Your task to perform on an android device: open sync settings in chrome Image 0: 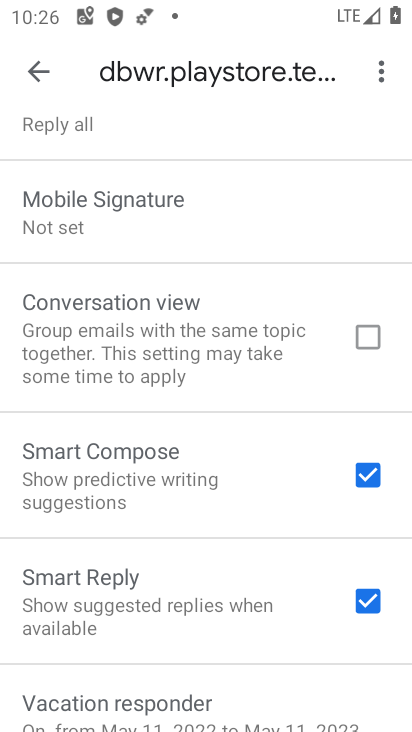
Step 0: press home button
Your task to perform on an android device: open sync settings in chrome Image 1: 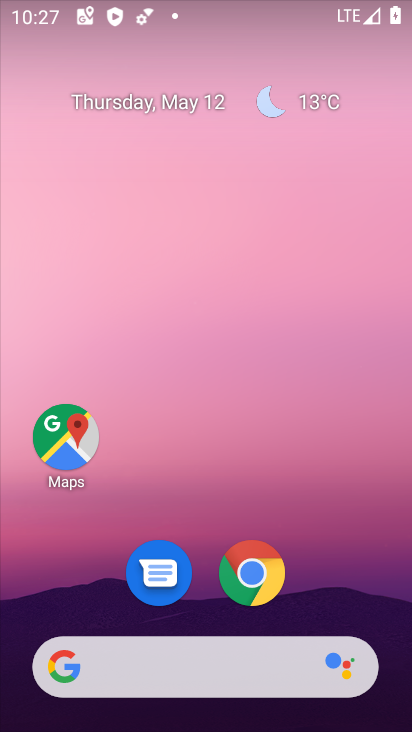
Step 1: click (277, 576)
Your task to perform on an android device: open sync settings in chrome Image 2: 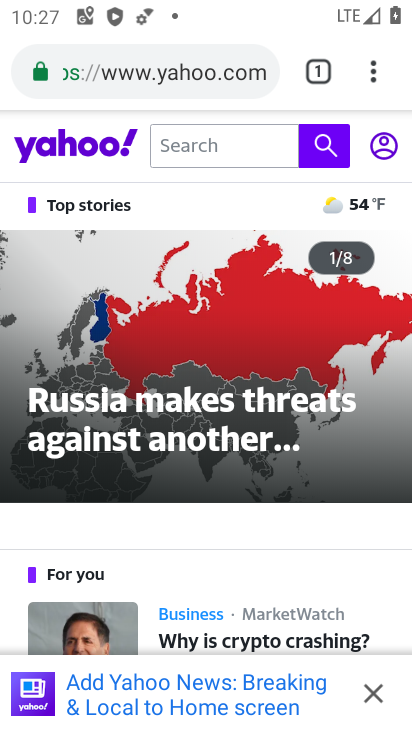
Step 2: click (366, 75)
Your task to perform on an android device: open sync settings in chrome Image 3: 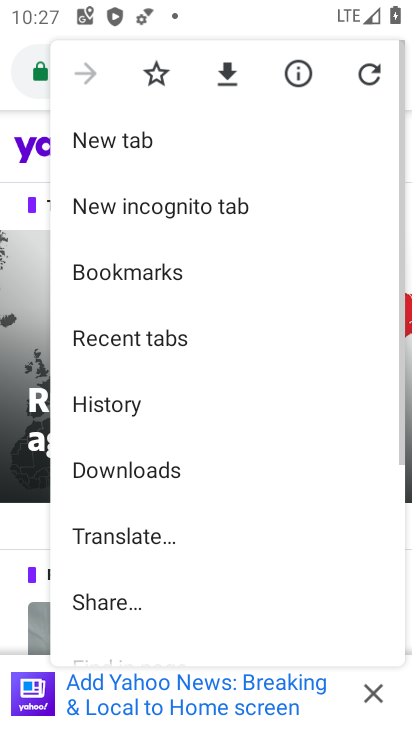
Step 3: drag from (141, 546) to (117, 62)
Your task to perform on an android device: open sync settings in chrome Image 4: 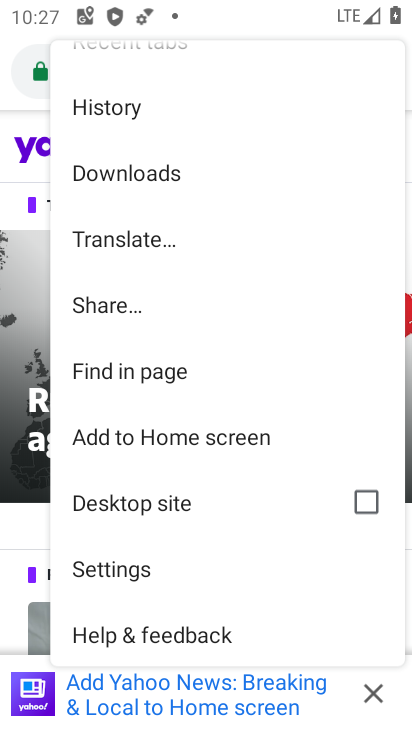
Step 4: click (132, 560)
Your task to perform on an android device: open sync settings in chrome Image 5: 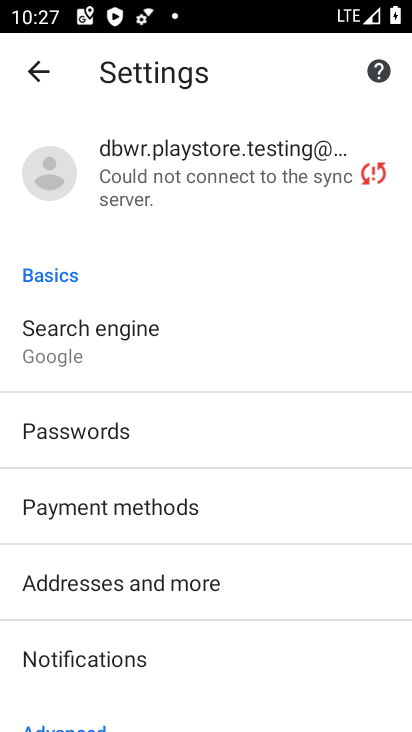
Step 5: click (203, 596)
Your task to perform on an android device: open sync settings in chrome Image 6: 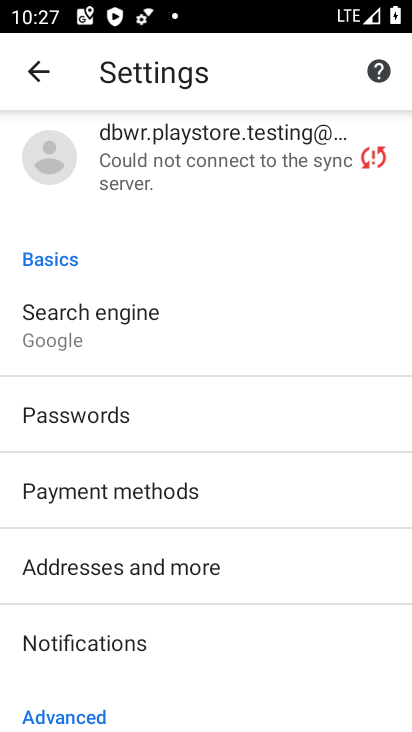
Step 6: click (228, 137)
Your task to perform on an android device: open sync settings in chrome Image 7: 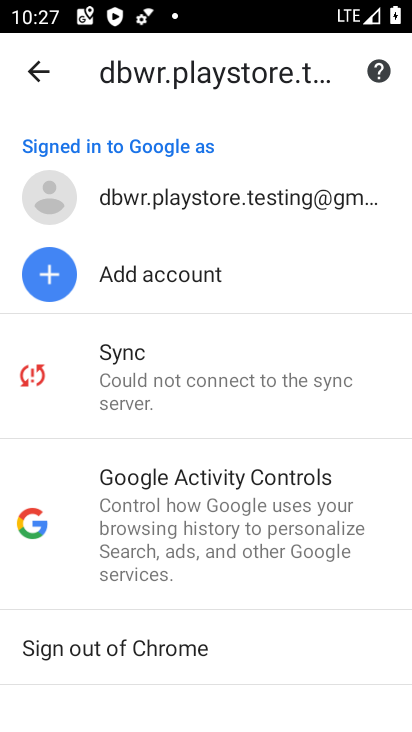
Step 7: task complete